Your task to perform on an android device: check data usage Image 0: 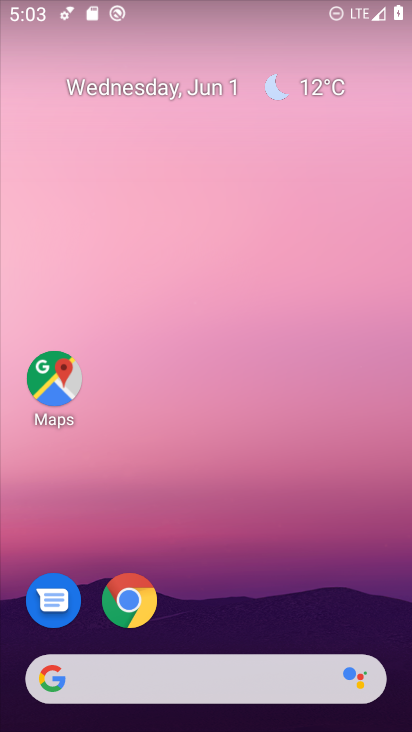
Step 0: drag from (272, 617) to (288, 77)
Your task to perform on an android device: check data usage Image 1: 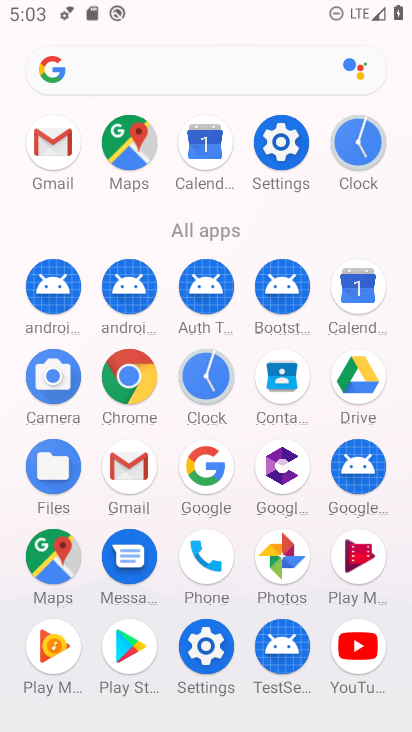
Step 1: click (206, 642)
Your task to perform on an android device: check data usage Image 2: 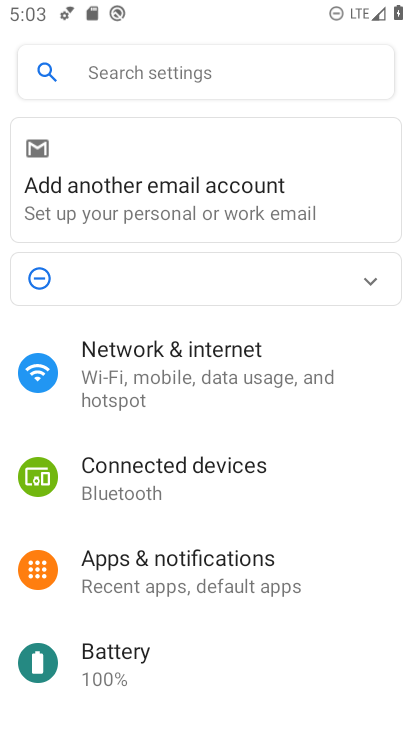
Step 2: drag from (180, 535) to (177, 413)
Your task to perform on an android device: check data usage Image 3: 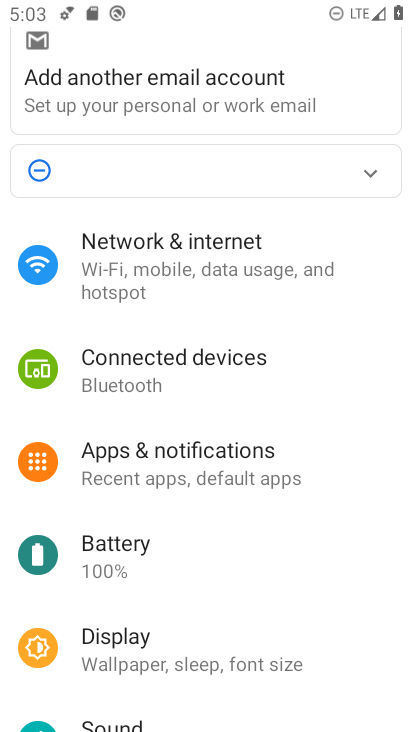
Step 3: click (220, 266)
Your task to perform on an android device: check data usage Image 4: 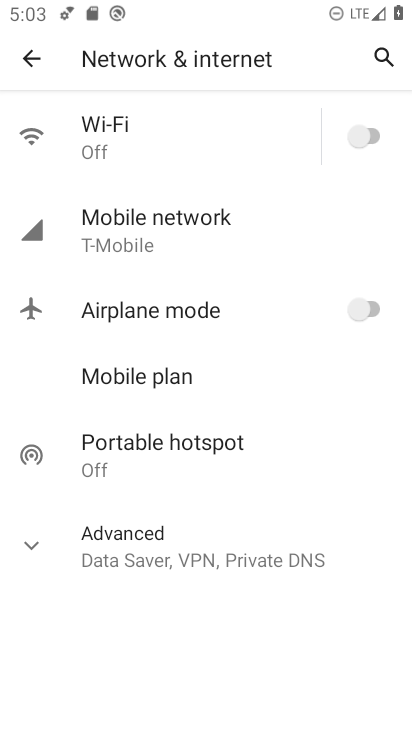
Step 4: click (184, 236)
Your task to perform on an android device: check data usage Image 5: 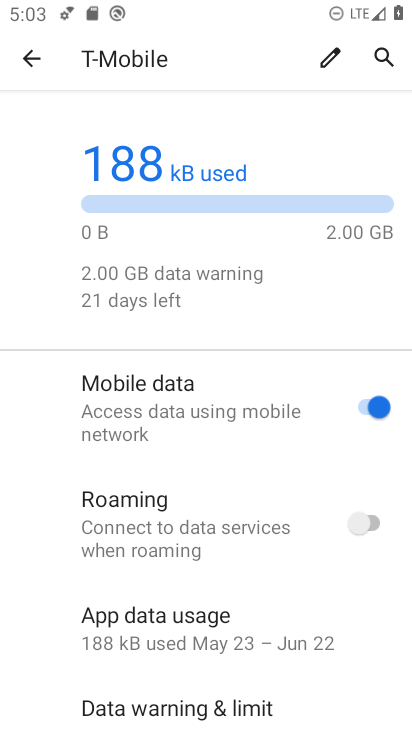
Step 5: task complete